Your task to perform on an android device: toggle notification dots Image 0: 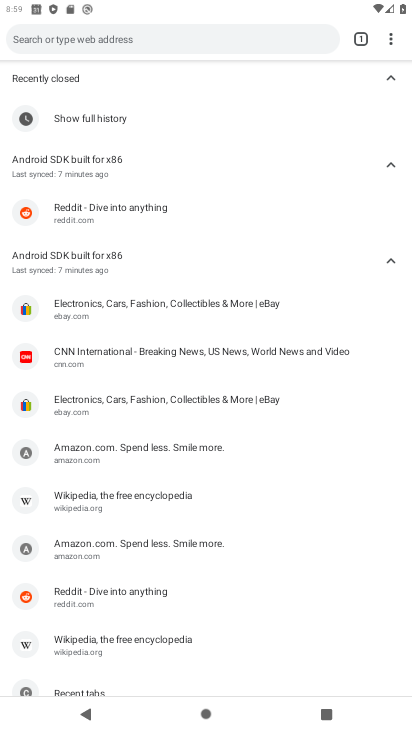
Step 0: press home button
Your task to perform on an android device: toggle notification dots Image 1: 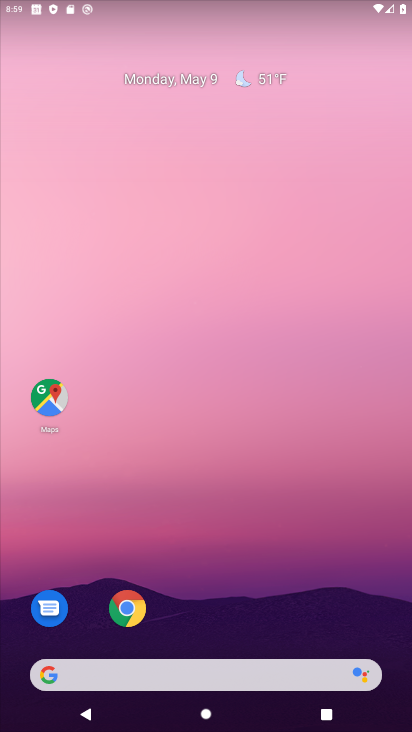
Step 1: drag from (280, 541) to (310, 31)
Your task to perform on an android device: toggle notification dots Image 2: 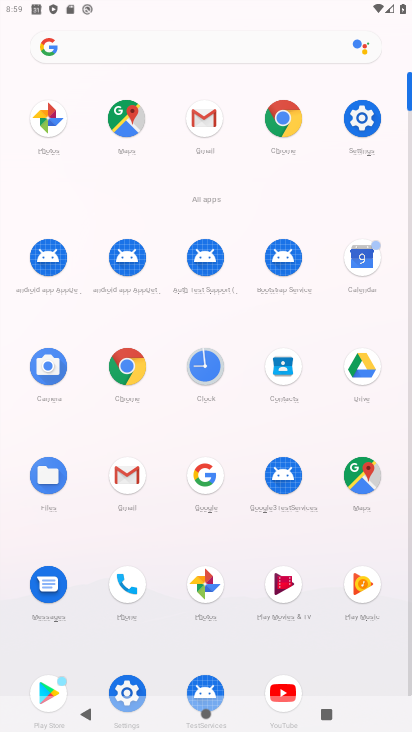
Step 2: click (363, 106)
Your task to perform on an android device: toggle notification dots Image 3: 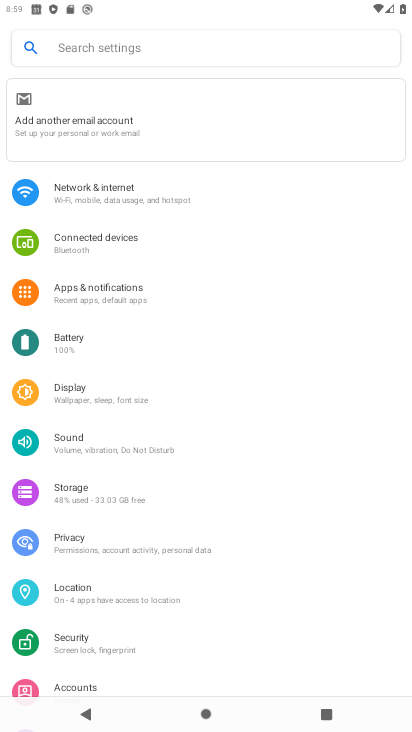
Step 3: click (135, 292)
Your task to perform on an android device: toggle notification dots Image 4: 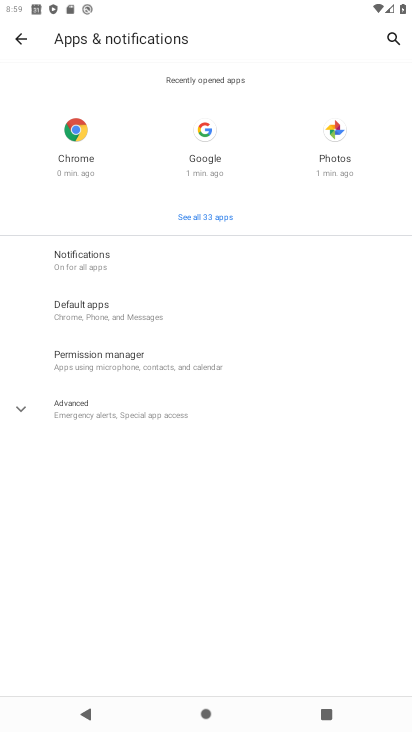
Step 4: click (65, 279)
Your task to perform on an android device: toggle notification dots Image 5: 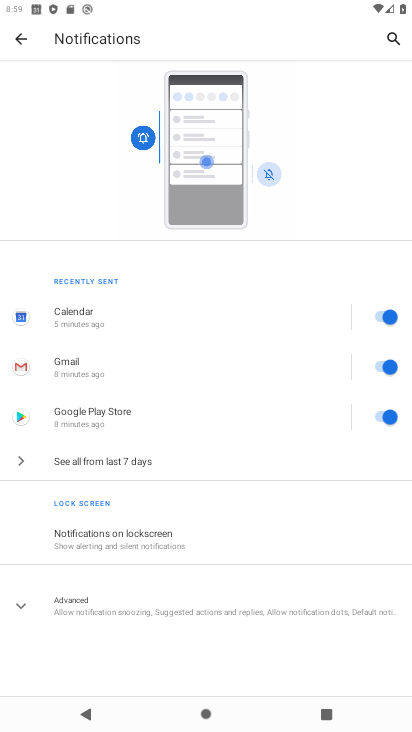
Step 5: click (136, 616)
Your task to perform on an android device: toggle notification dots Image 6: 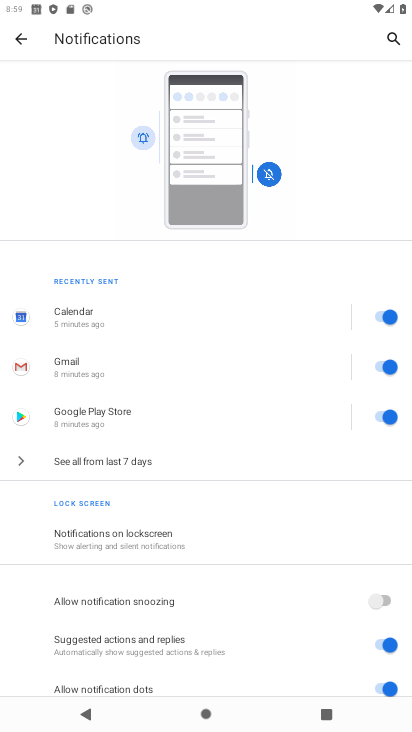
Step 6: drag from (189, 651) to (196, 355)
Your task to perform on an android device: toggle notification dots Image 7: 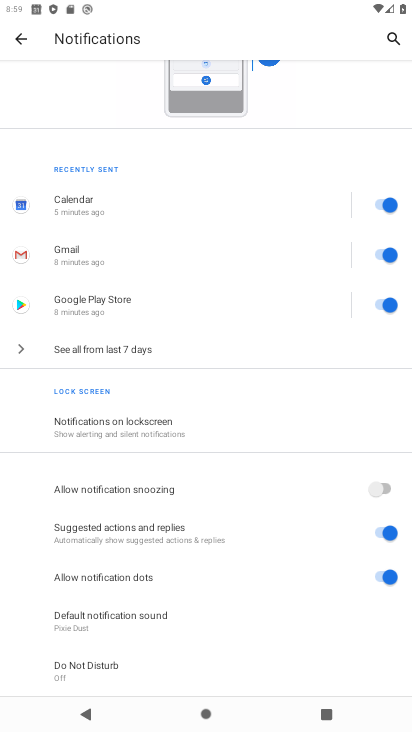
Step 7: click (390, 583)
Your task to perform on an android device: toggle notification dots Image 8: 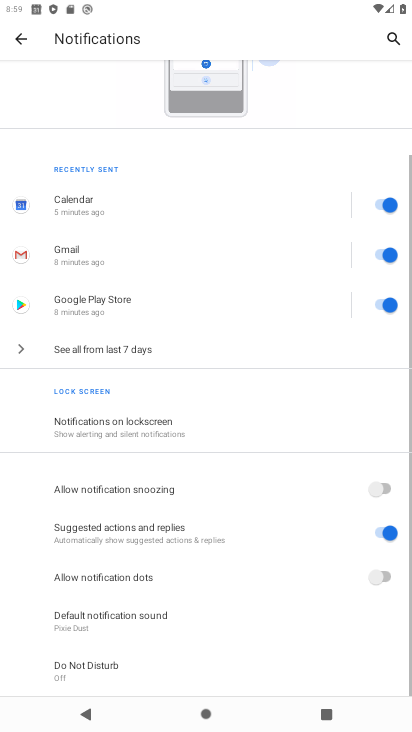
Step 8: task complete